Your task to perform on an android device: turn off translation in the chrome app Image 0: 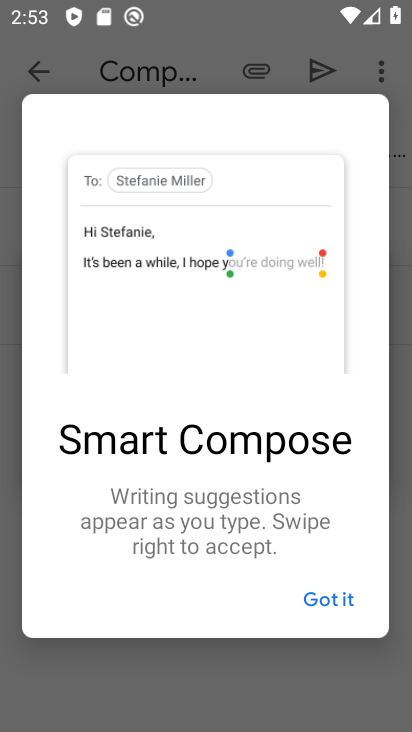
Step 0: press home button
Your task to perform on an android device: turn off translation in the chrome app Image 1: 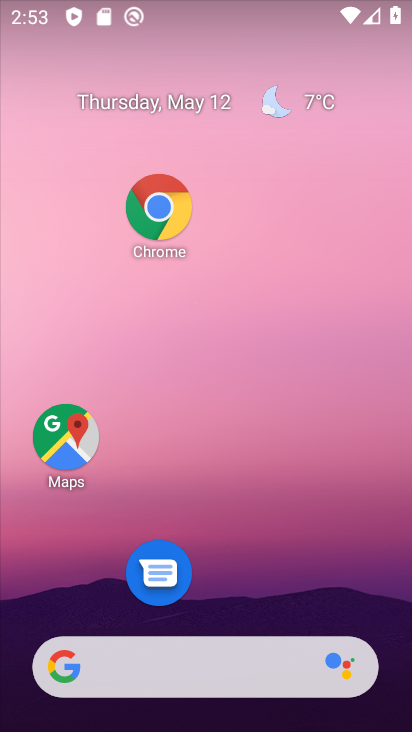
Step 1: click (166, 210)
Your task to perform on an android device: turn off translation in the chrome app Image 2: 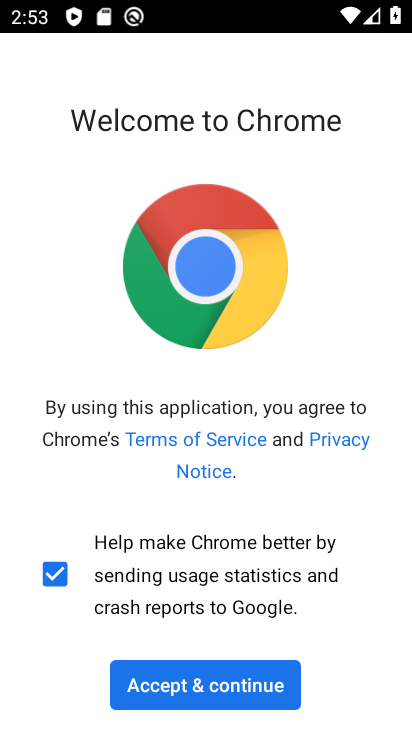
Step 2: click (237, 683)
Your task to perform on an android device: turn off translation in the chrome app Image 3: 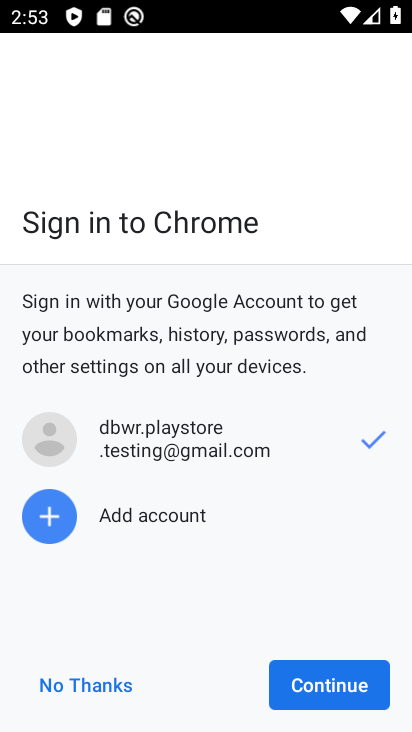
Step 3: click (326, 690)
Your task to perform on an android device: turn off translation in the chrome app Image 4: 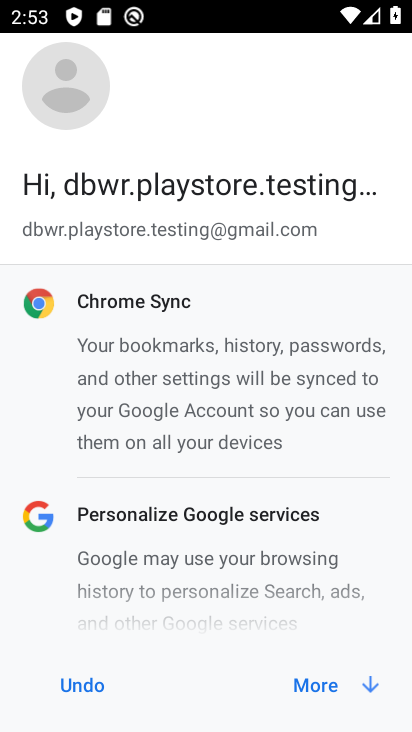
Step 4: click (326, 690)
Your task to perform on an android device: turn off translation in the chrome app Image 5: 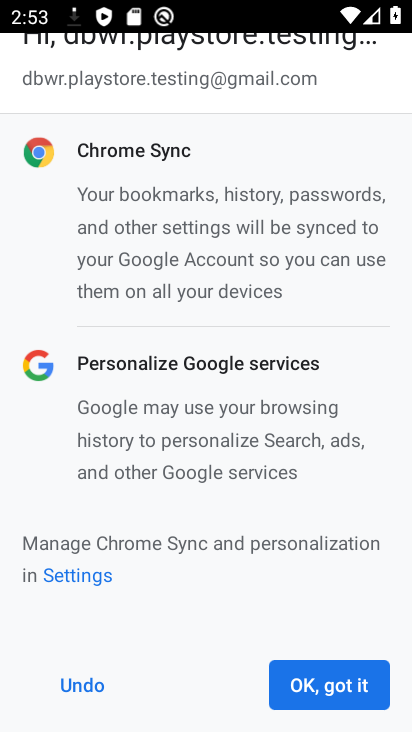
Step 5: click (325, 690)
Your task to perform on an android device: turn off translation in the chrome app Image 6: 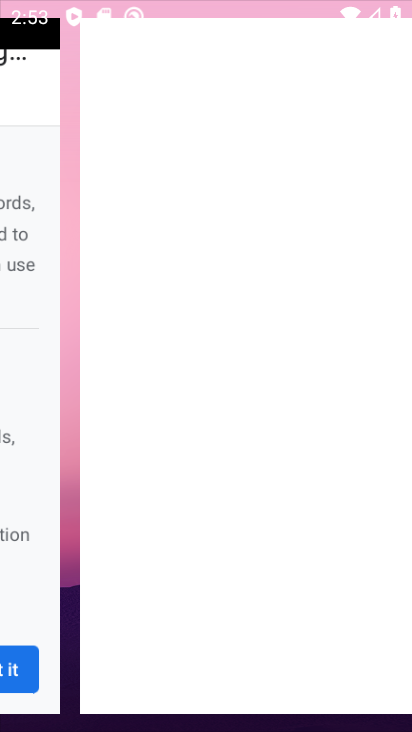
Step 6: click (325, 690)
Your task to perform on an android device: turn off translation in the chrome app Image 7: 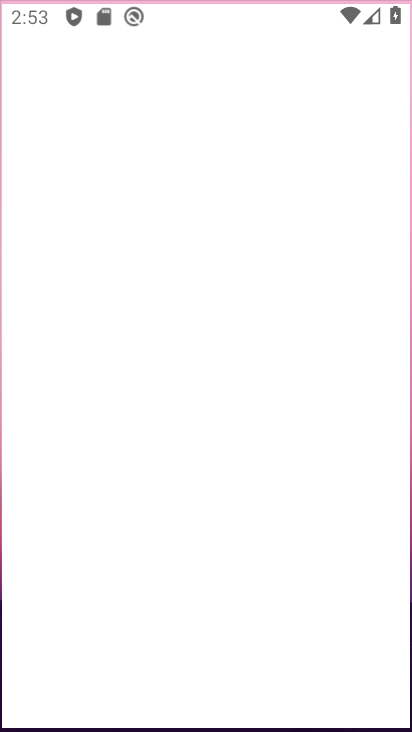
Step 7: click (325, 690)
Your task to perform on an android device: turn off translation in the chrome app Image 8: 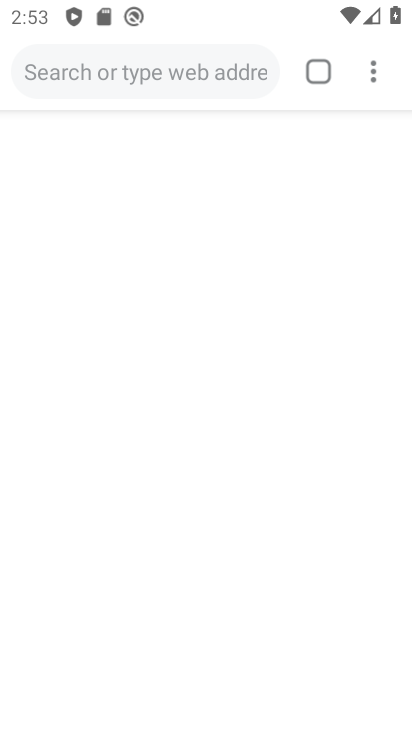
Step 8: click (325, 690)
Your task to perform on an android device: turn off translation in the chrome app Image 9: 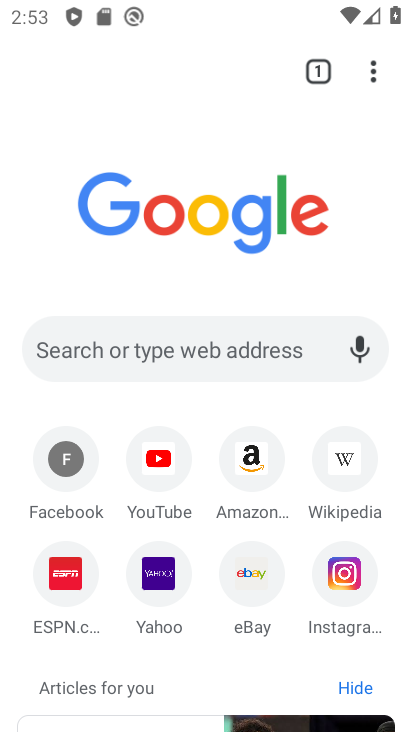
Step 9: click (381, 84)
Your task to perform on an android device: turn off translation in the chrome app Image 10: 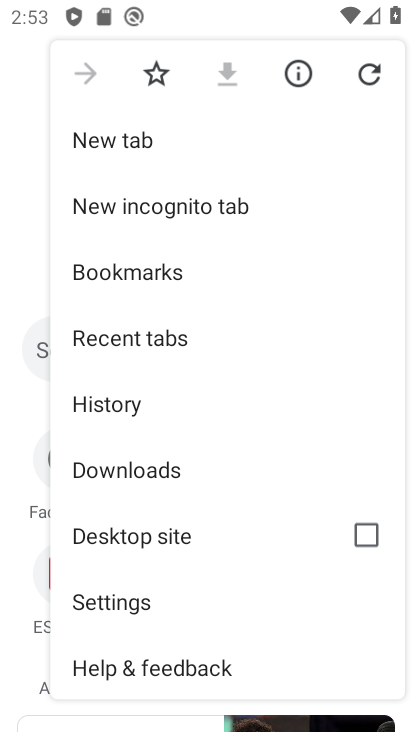
Step 10: drag from (126, 601) to (135, 519)
Your task to perform on an android device: turn off translation in the chrome app Image 11: 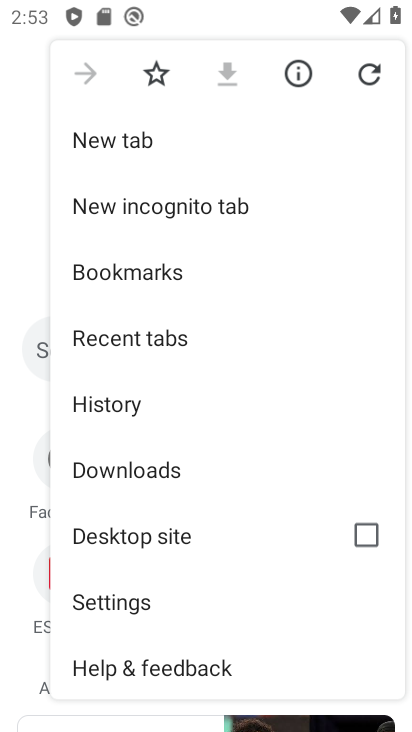
Step 11: click (97, 591)
Your task to perform on an android device: turn off translation in the chrome app Image 12: 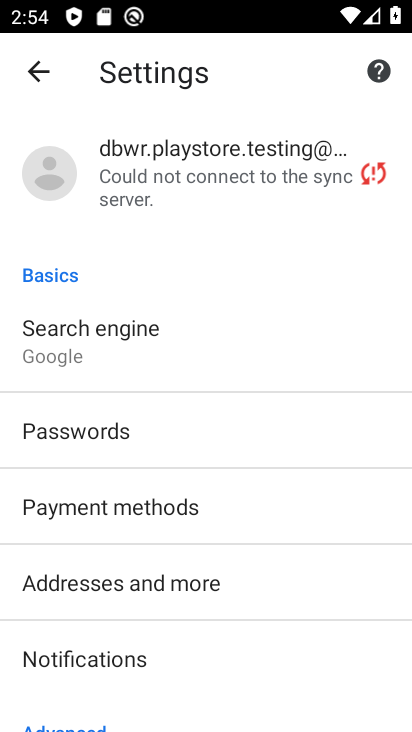
Step 12: drag from (153, 537) to (209, 206)
Your task to perform on an android device: turn off translation in the chrome app Image 13: 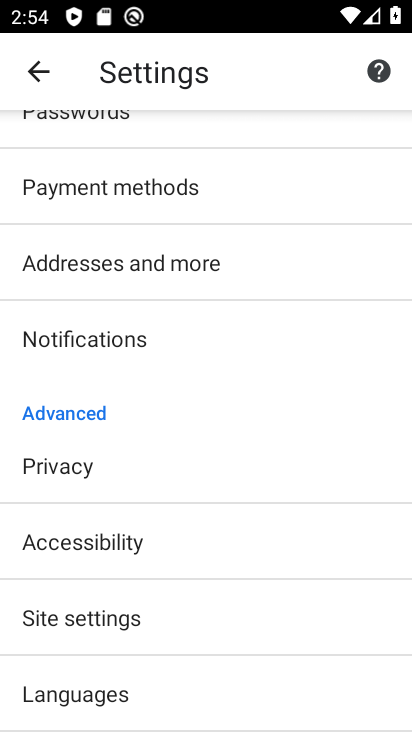
Step 13: click (82, 697)
Your task to perform on an android device: turn off translation in the chrome app Image 14: 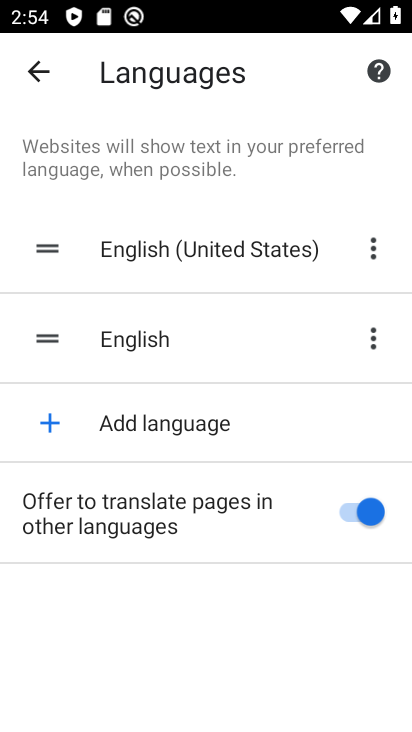
Step 14: click (333, 504)
Your task to perform on an android device: turn off translation in the chrome app Image 15: 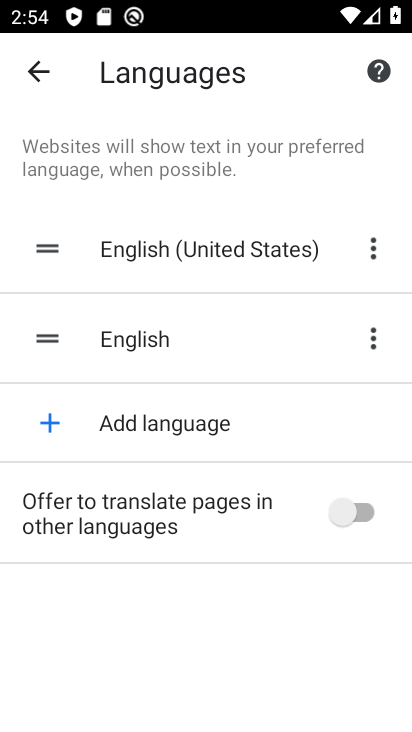
Step 15: task complete